Your task to perform on an android device: Show me popular videos on Youtube Image 0: 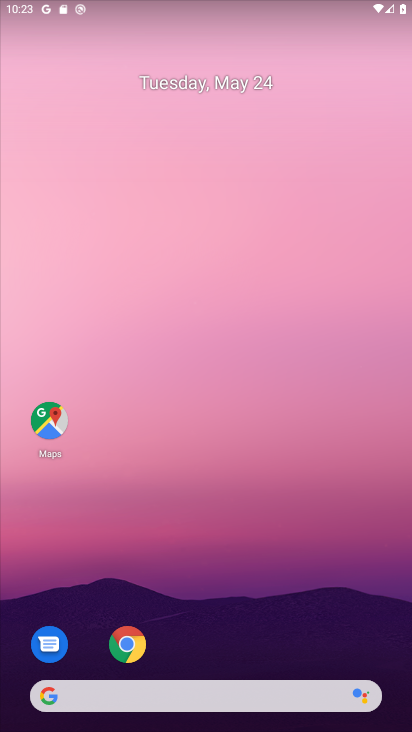
Step 0: drag from (243, 563) to (143, 99)
Your task to perform on an android device: Show me popular videos on Youtube Image 1: 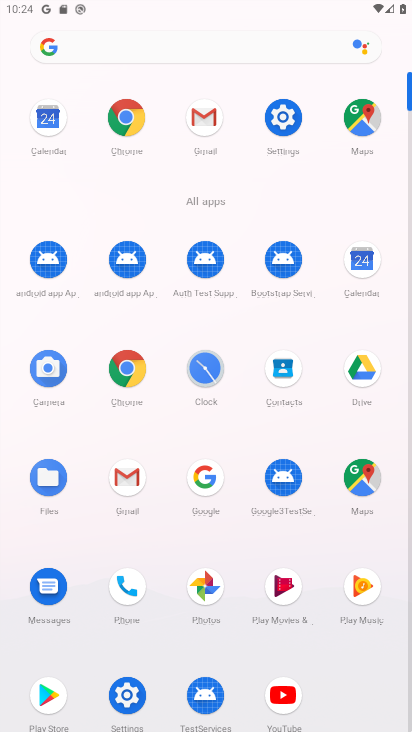
Step 1: click (276, 686)
Your task to perform on an android device: Show me popular videos on Youtube Image 2: 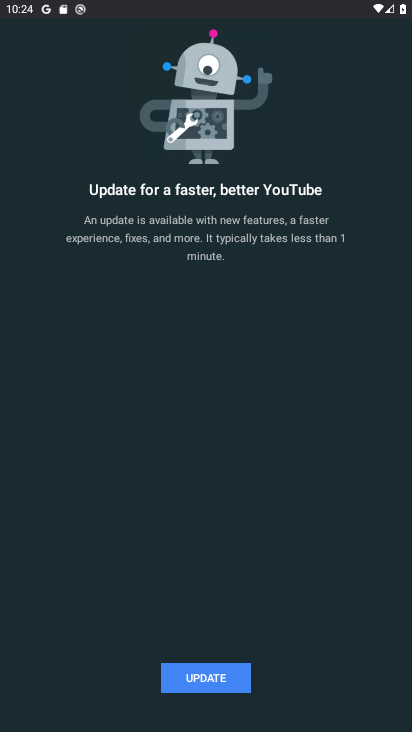
Step 2: click (207, 678)
Your task to perform on an android device: Show me popular videos on Youtube Image 3: 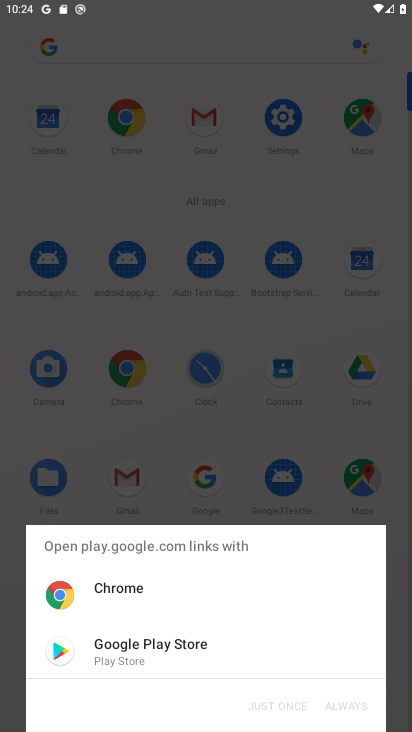
Step 3: click (99, 638)
Your task to perform on an android device: Show me popular videos on Youtube Image 4: 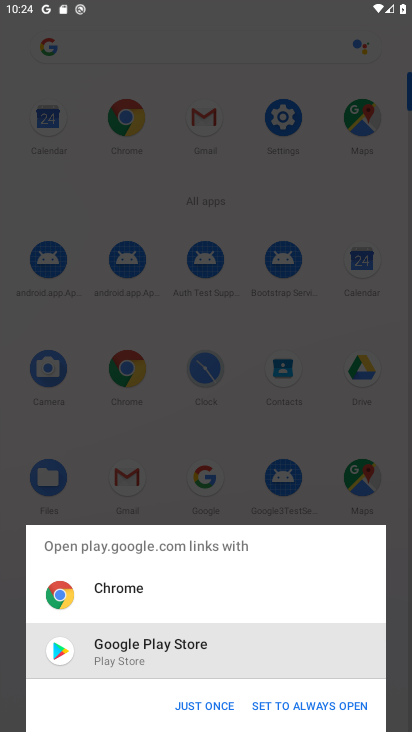
Step 4: click (220, 704)
Your task to perform on an android device: Show me popular videos on Youtube Image 5: 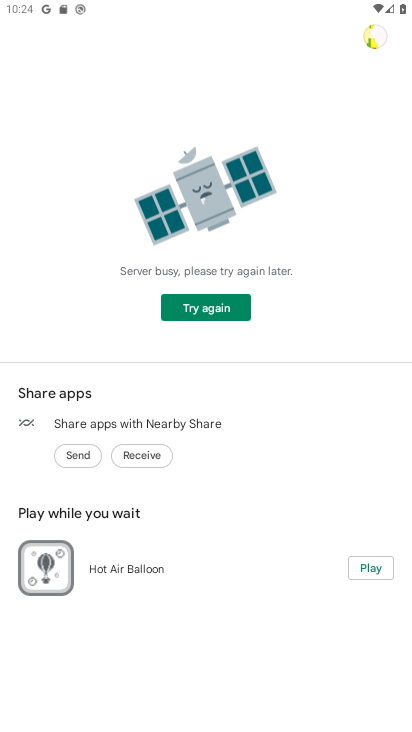
Step 5: click (198, 308)
Your task to perform on an android device: Show me popular videos on Youtube Image 6: 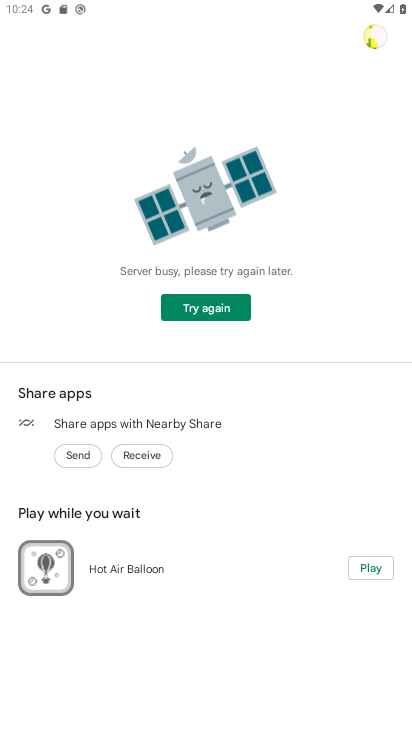
Step 6: click (198, 308)
Your task to perform on an android device: Show me popular videos on Youtube Image 7: 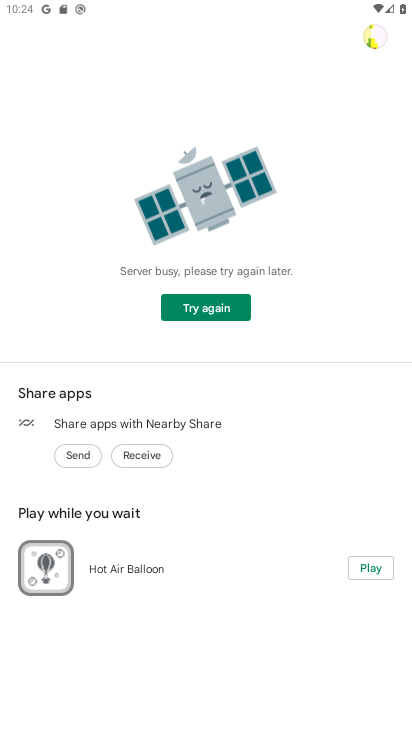
Step 7: click (198, 308)
Your task to perform on an android device: Show me popular videos on Youtube Image 8: 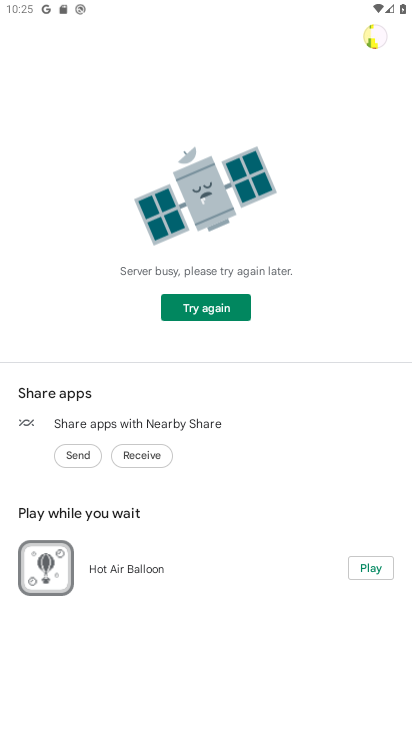
Step 8: click (198, 308)
Your task to perform on an android device: Show me popular videos on Youtube Image 9: 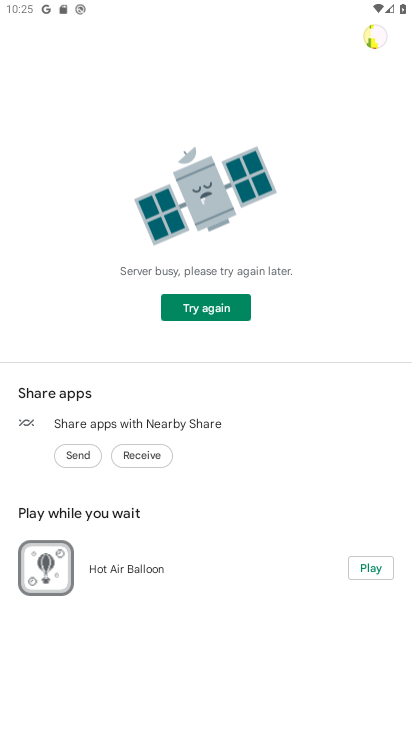
Step 9: click (198, 308)
Your task to perform on an android device: Show me popular videos on Youtube Image 10: 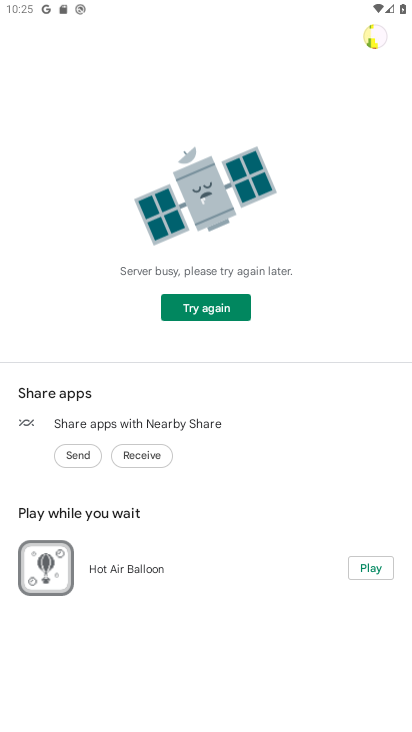
Step 10: task complete